Your task to perform on an android device: stop showing notifications on the lock screen Image 0: 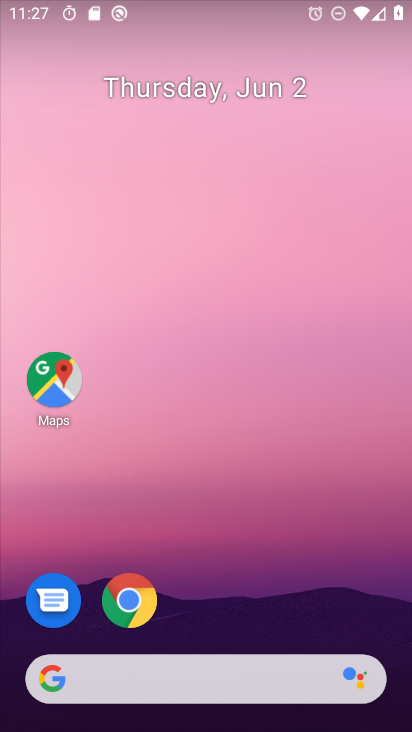
Step 0: drag from (261, 539) to (276, 63)
Your task to perform on an android device: stop showing notifications on the lock screen Image 1: 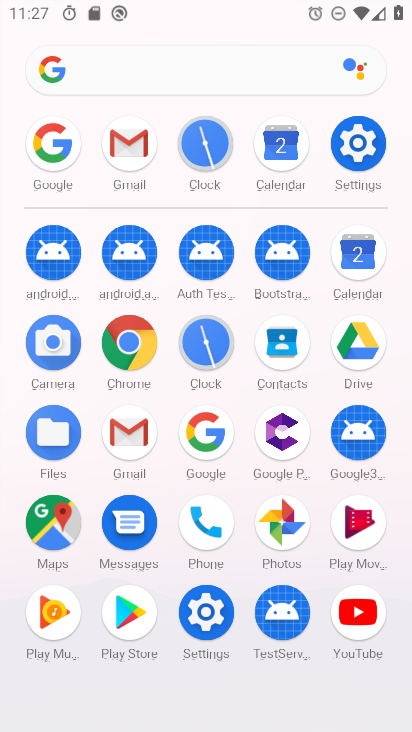
Step 1: click (349, 145)
Your task to perform on an android device: stop showing notifications on the lock screen Image 2: 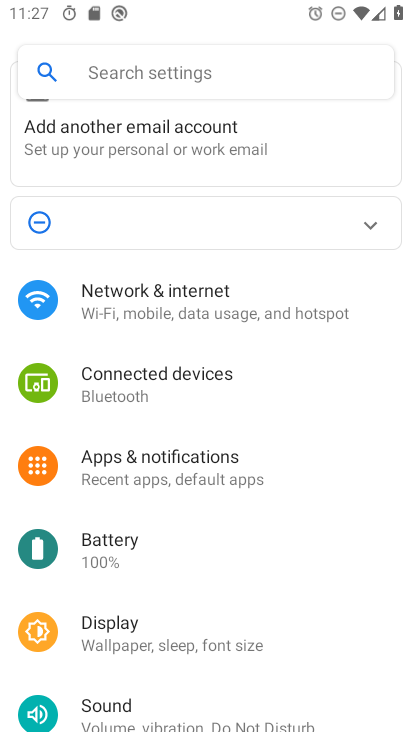
Step 2: click (210, 468)
Your task to perform on an android device: stop showing notifications on the lock screen Image 3: 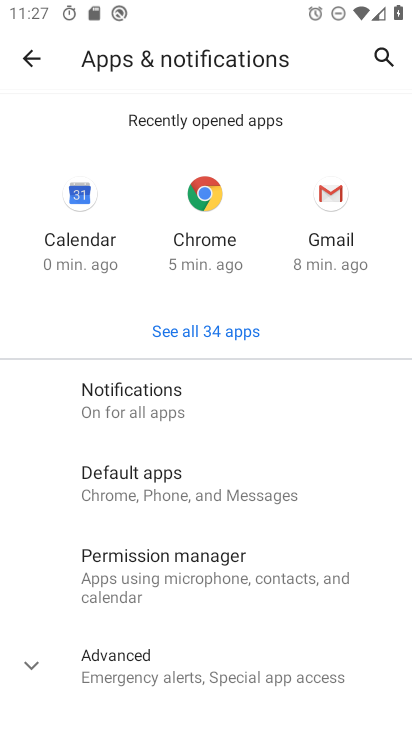
Step 3: click (193, 409)
Your task to perform on an android device: stop showing notifications on the lock screen Image 4: 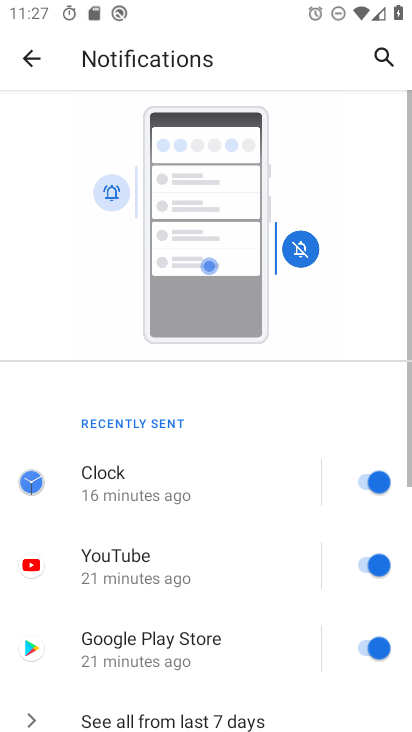
Step 4: drag from (207, 572) to (206, 22)
Your task to perform on an android device: stop showing notifications on the lock screen Image 5: 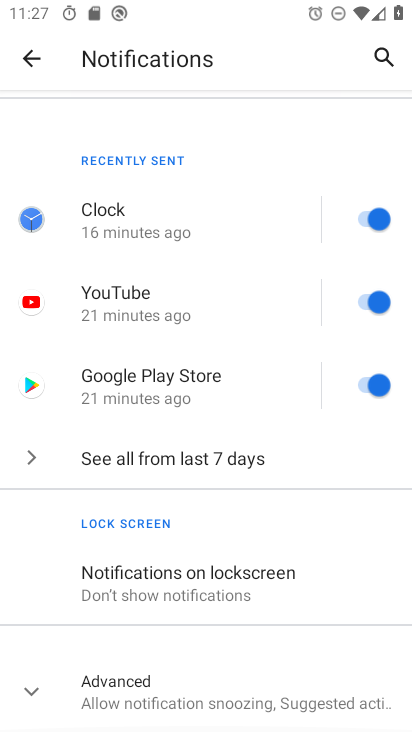
Step 5: click (175, 579)
Your task to perform on an android device: stop showing notifications on the lock screen Image 6: 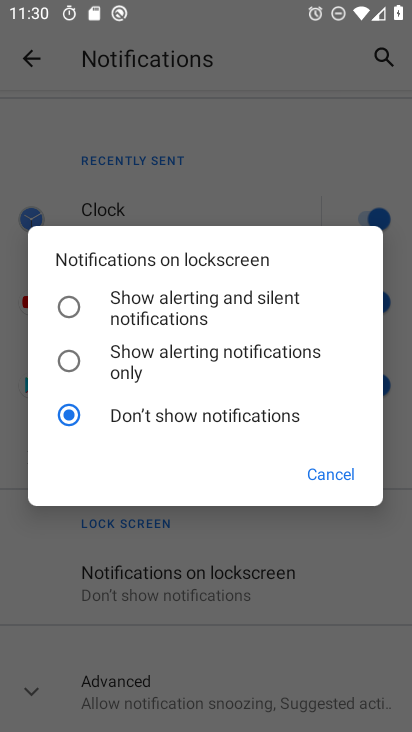
Step 6: task complete